Your task to perform on an android device: Go to battery settings Image 0: 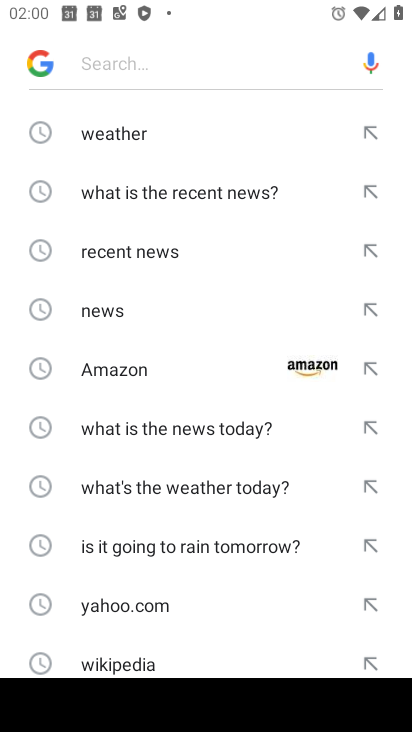
Step 0: press home button
Your task to perform on an android device: Go to battery settings Image 1: 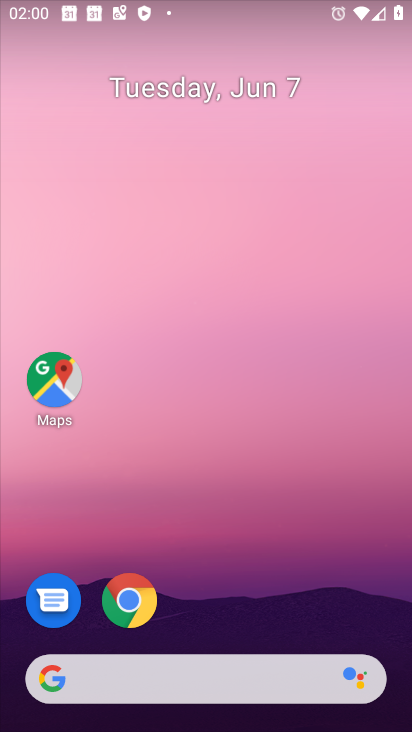
Step 1: drag from (217, 709) to (218, 177)
Your task to perform on an android device: Go to battery settings Image 2: 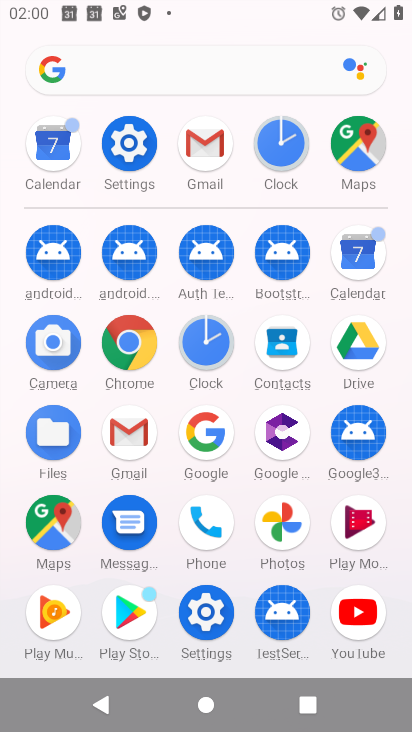
Step 2: click (130, 143)
Your task to perform on an android device: Go to battery settings Image 3: 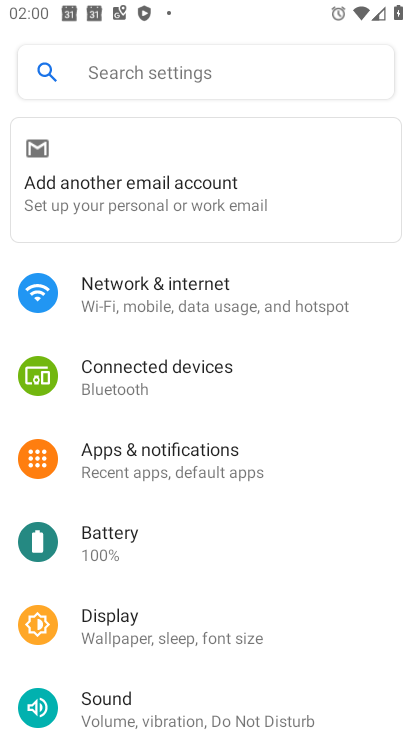
Step 3: click (95, 536)
Your task to perform on an android device: Go to battery settings Image 4: 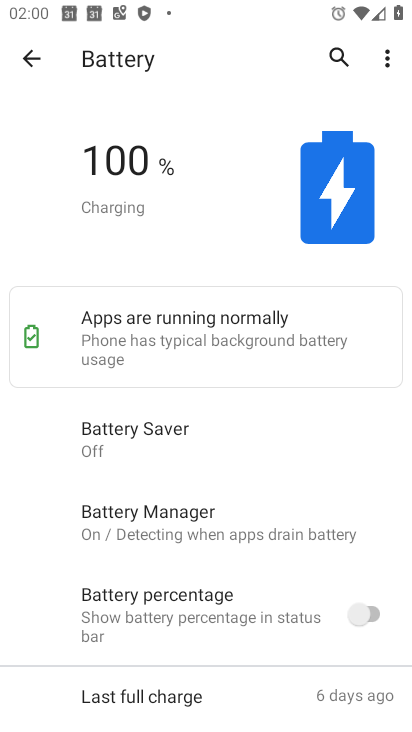
Step 4: task complete